Your task to perform on an android device: star an email in the gmail app Image 0: 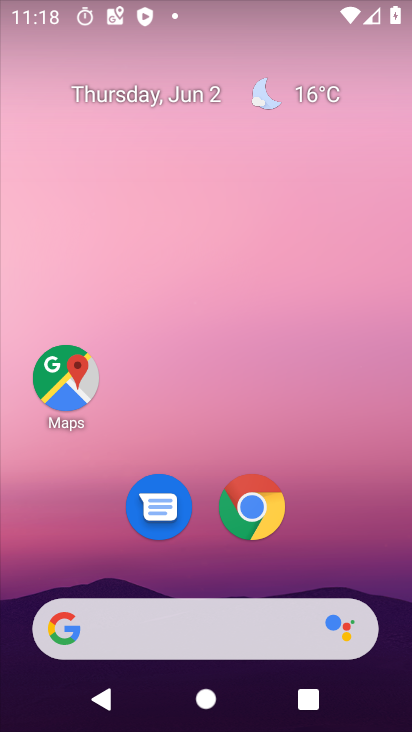
Step 0: drag from (393, 628) to (349, 283)
Your task to perform on an android device: star an email in the gmail app Image 1: 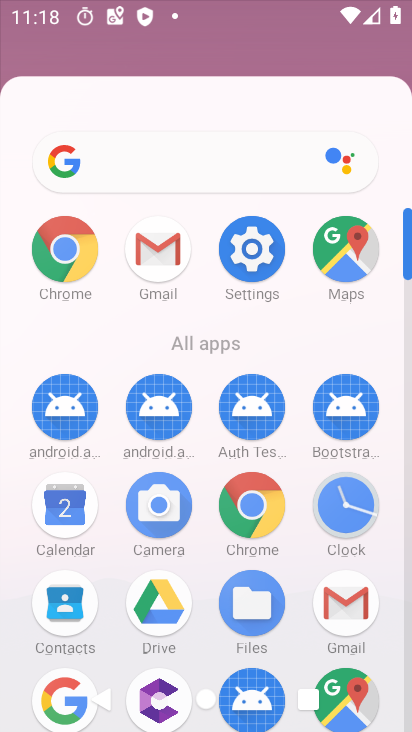
Step 1: click (294, 41)
Your task to perform on an android device: star an email in the gmail app Image 2: 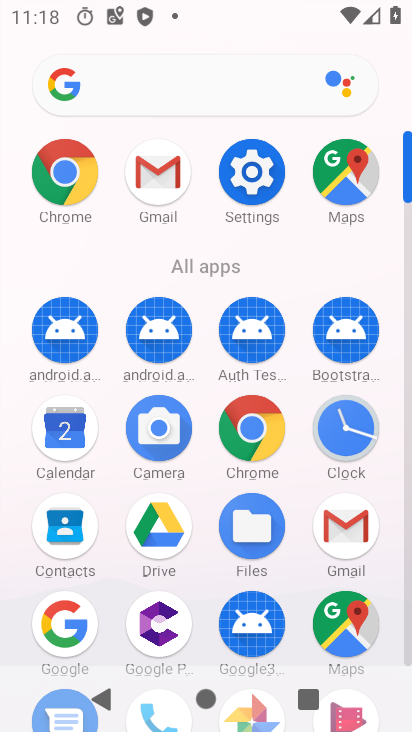
Step 2: click (346, 515)
Your task to perform on an android device: star an email in the gmail app Image 3: 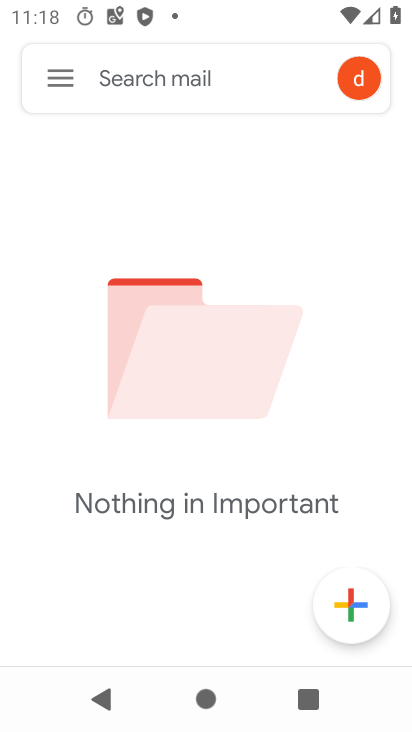
Step 3: click (65, 92)
Your task to perform on an android device: star an email in the gmail app Image 4: 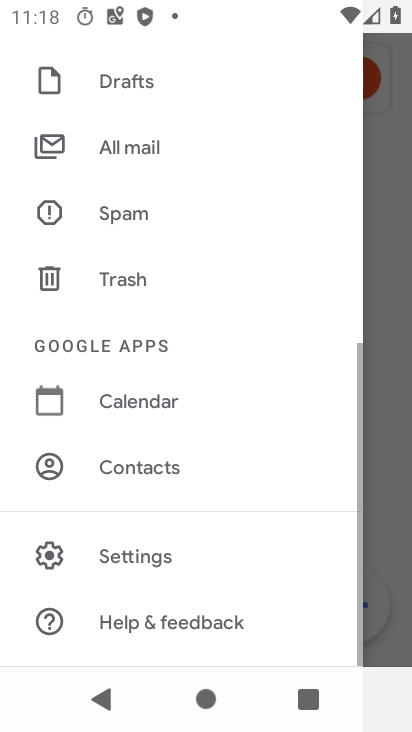
Step 4: drag from (143, 117) to (185, 700)
Your task to perform on an android device: star an email in the gmail app Image 5: 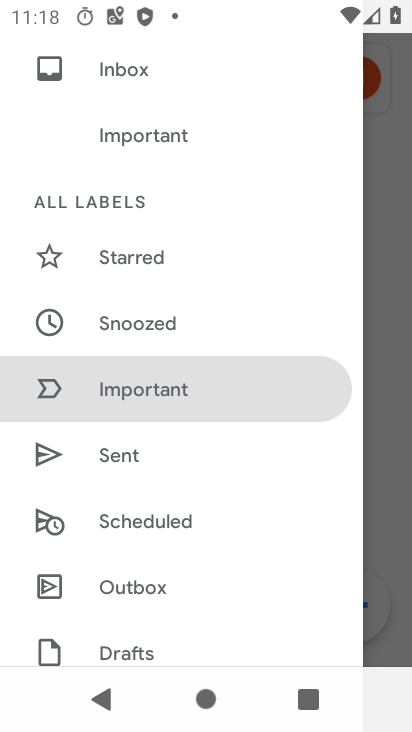
Step 5: drag from (147, 130) to (214, 602)
Your task to perform on an android device: star an email in the gmail app Image 6: 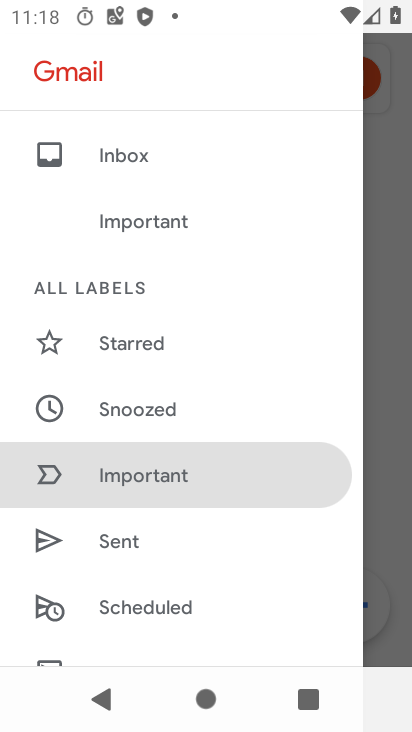
Step 6: click (171, 168)
Your task to perform on an android device: star an email in the gmail app Image 7: 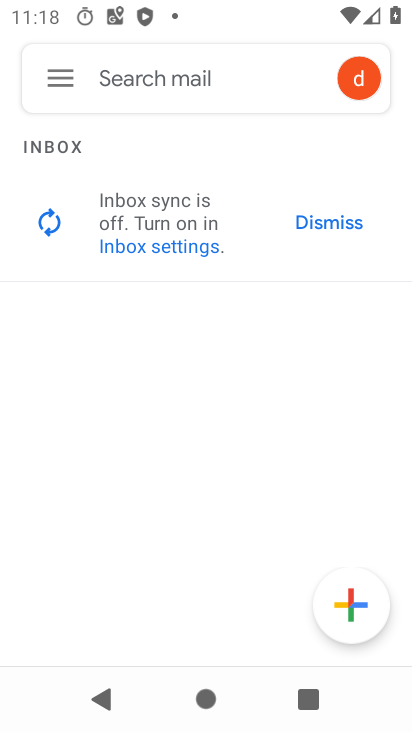
Step 7: task complete